Your task to perform on an android device: turn off priority inbox in the gmail app Image 0: 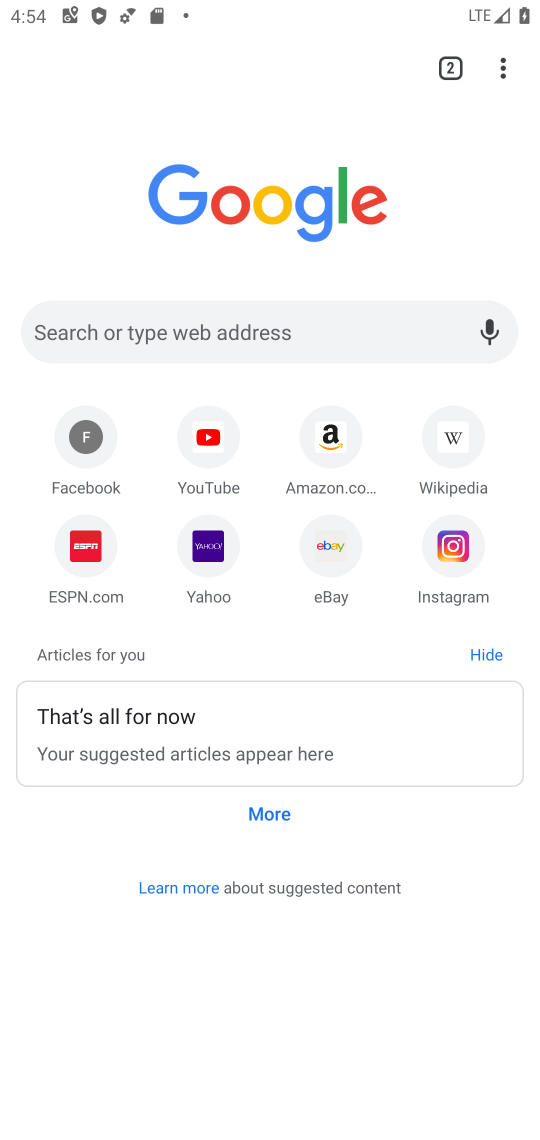
Step 0: press home button
Your task to perform on an android device: turn off priority inbox in the gmail app Image 1: 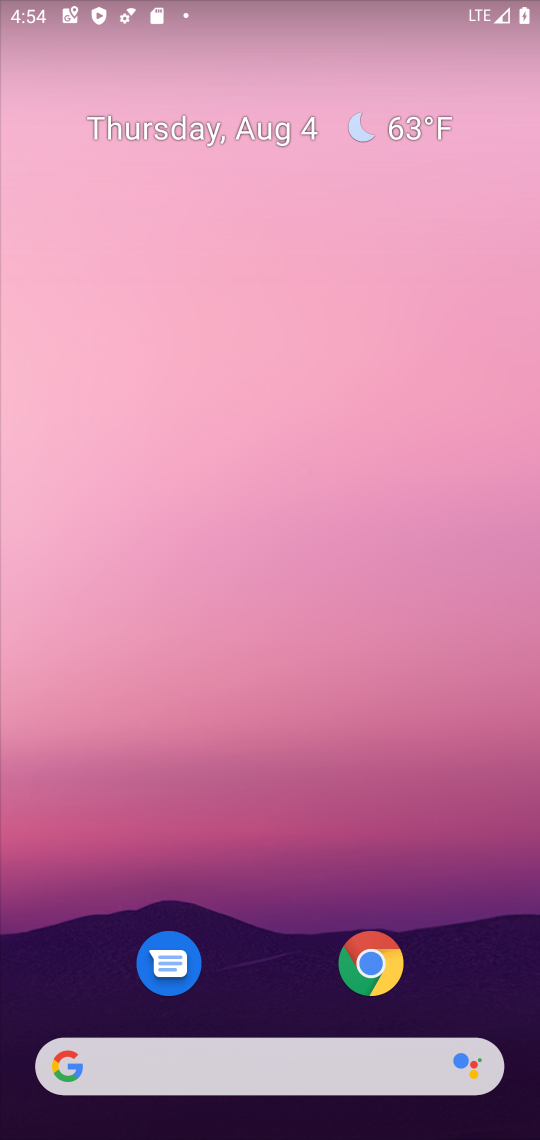
Step 1: drag from (299, 819) to (205, 126)
Your task to perform on an android device: turn off priority inbox in the gmail app Image 2: 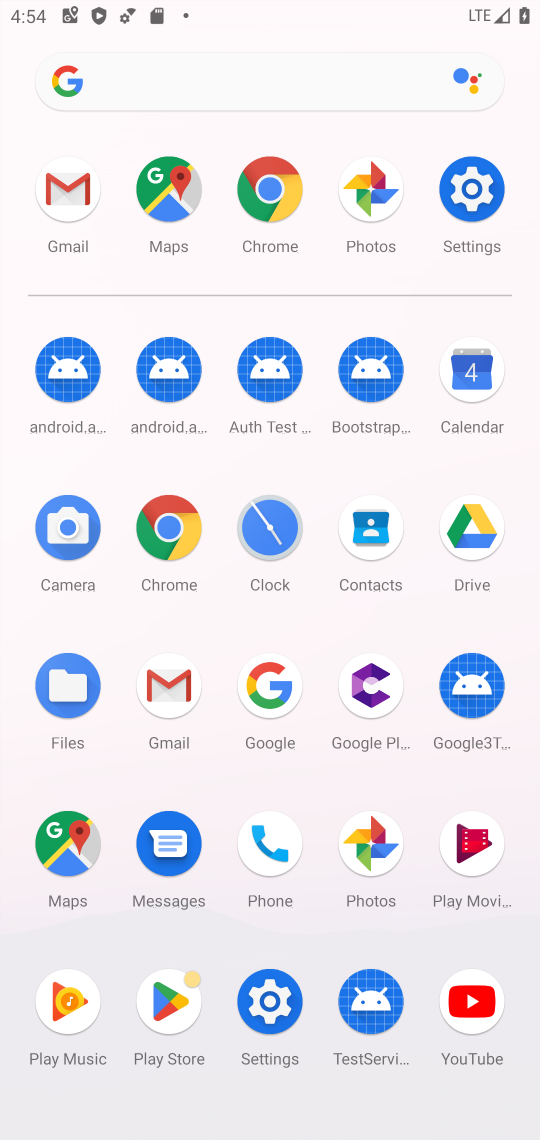
Step 2: click (61, 187)
Your task to perform on an android device: turn off priority inbox in the gmail app Image 3: 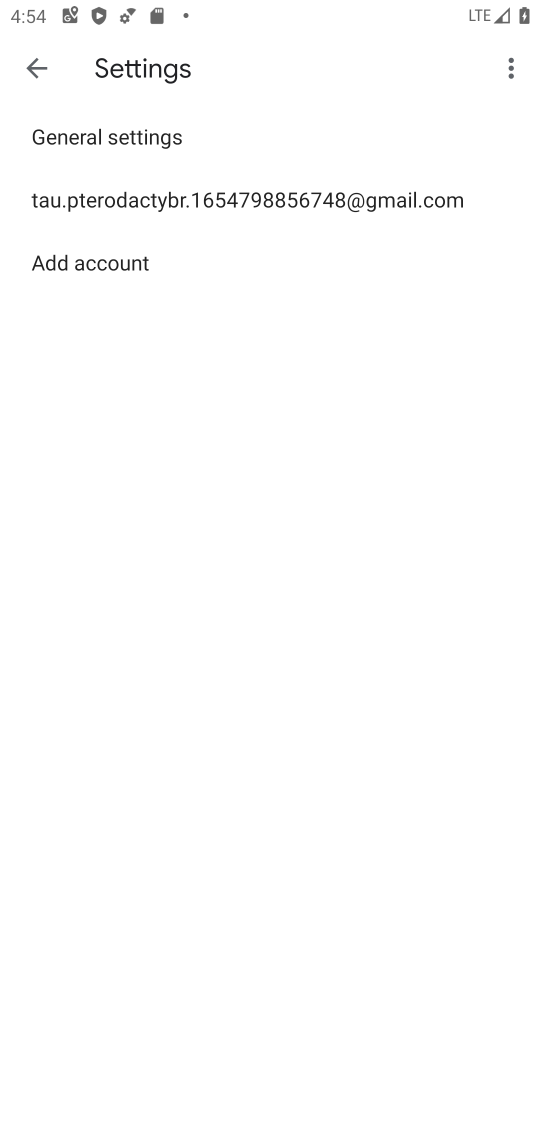
Step 3: click (115, 202)
Your task to perform on an android device: turn off priority inbox in the gmail app Image 4: 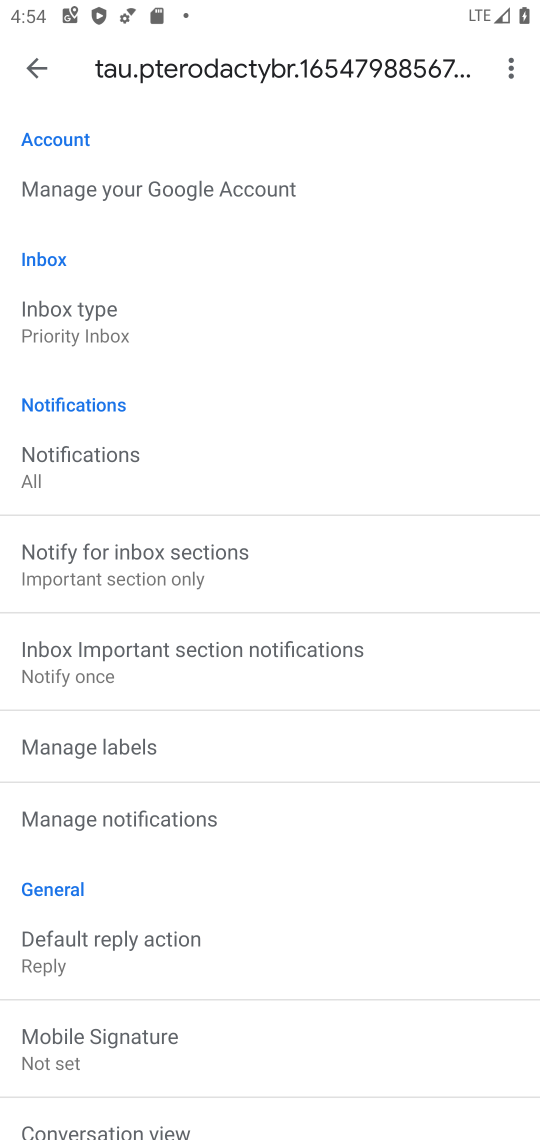
Step 4: click (86, 325)
Your task to perform on an android device: turn off priority inbox in the gmail app Image 5: 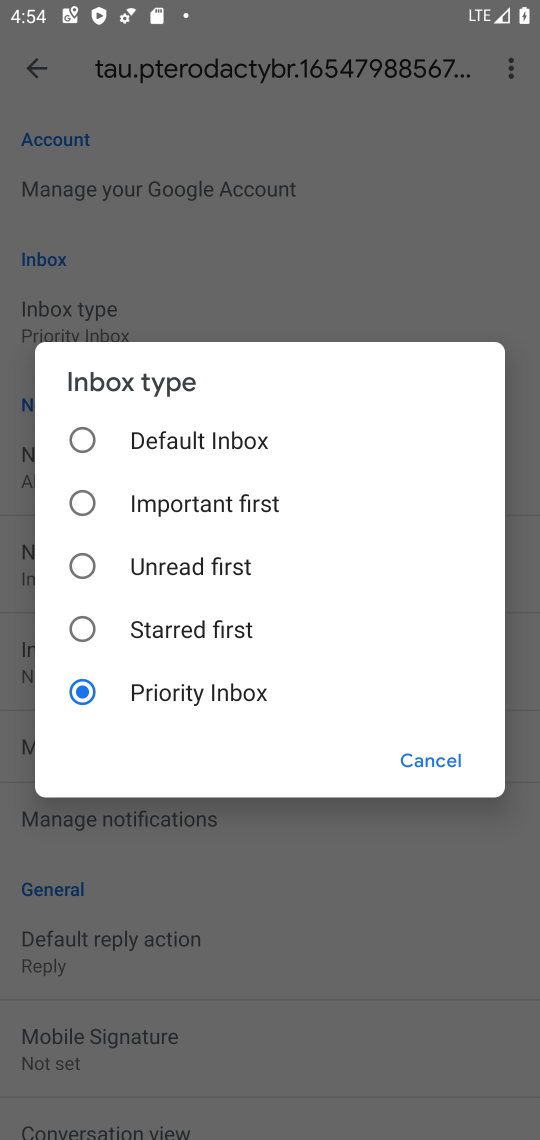
Step 5: click (79, 434)
Your task to perform on an android device: turn off priority inbox in the gmail app Image 6: 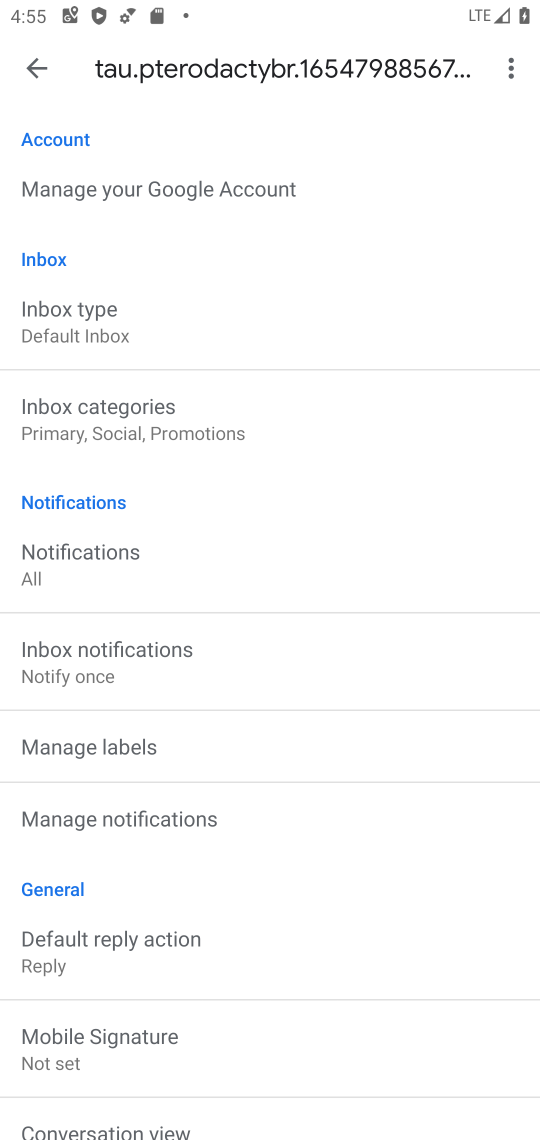
Step 6: task complete